Your task to perform on an android device: change the clock display to show seconds Image 0: 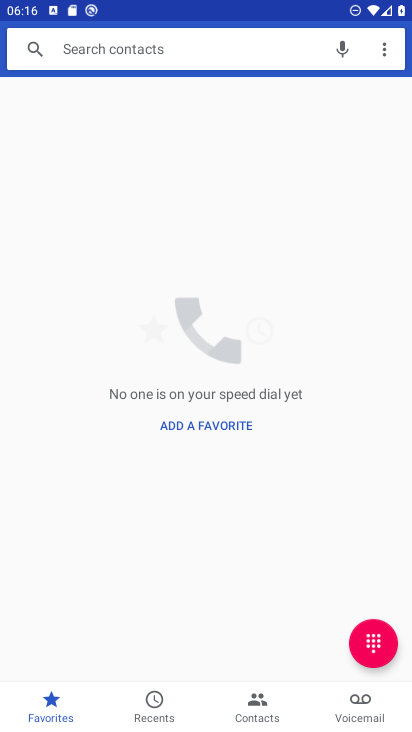
Step 0: press home button
Your task to perform on an android device: change the clock display to show seconds Image 1: 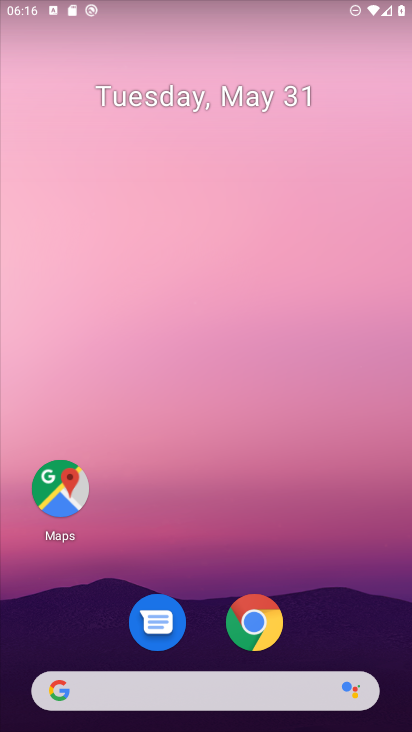
Step 1: drag from (341, 679) to (319, 3)
Your task to perform on an android device: change the clock display to show seconds Image 2: 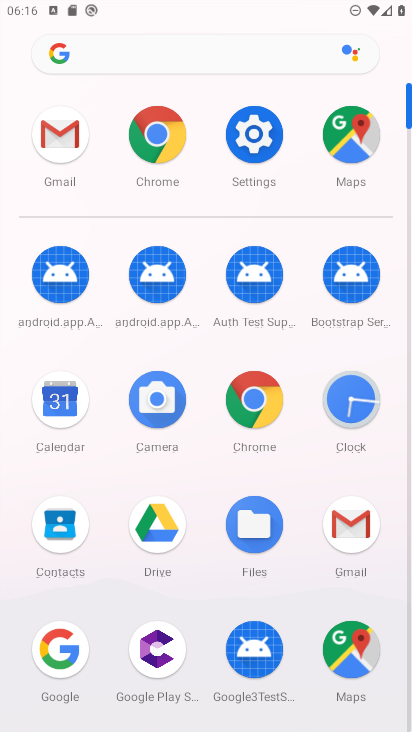
Step 2: click (346, 409)
Your task to perform on an android device: change the clock display to show seconds Image 3: 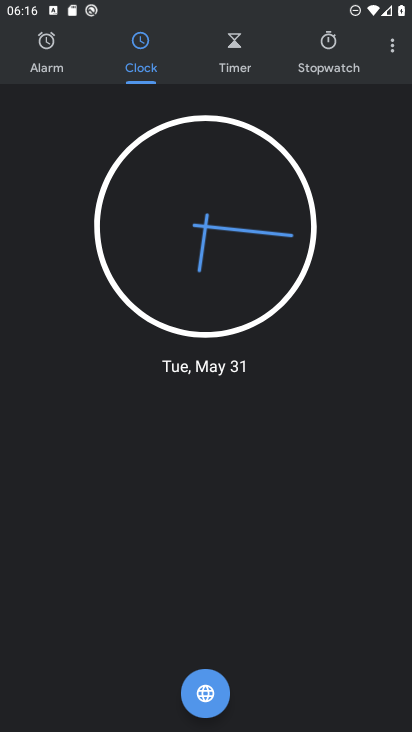
Step 3: click (394, 53)
Your task to perform on an android device: change the clock display to show seconds Image 4: 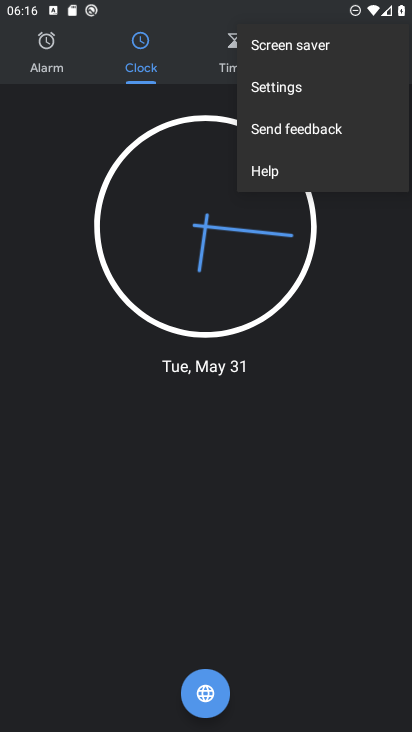
Step 4: click (316, 102)
Your task to perform on an android device: change the clock display to show seconds Image 5: 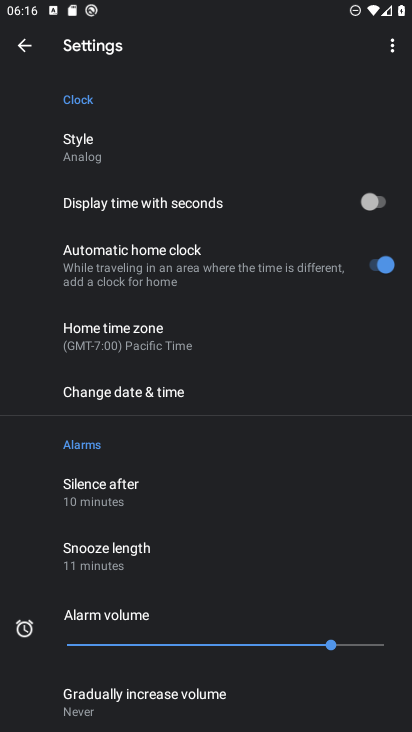
Step 5: click (380, 209)
Your task to perform on an android device: change the clock display to show seconds Image 6: 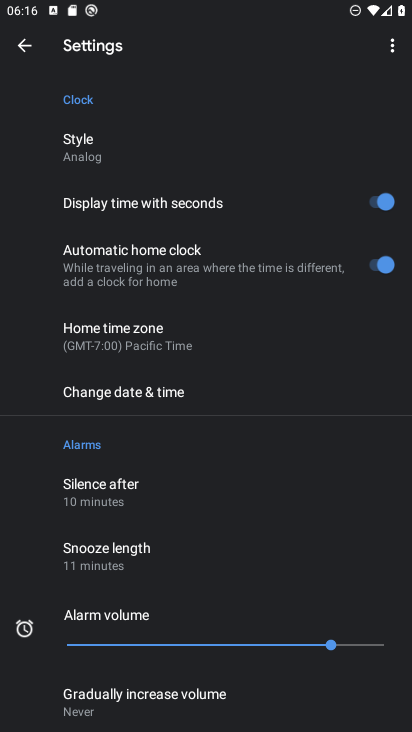
Step 6: task complete